Your task to perform on an android device: Open the stopwatch Image 0: 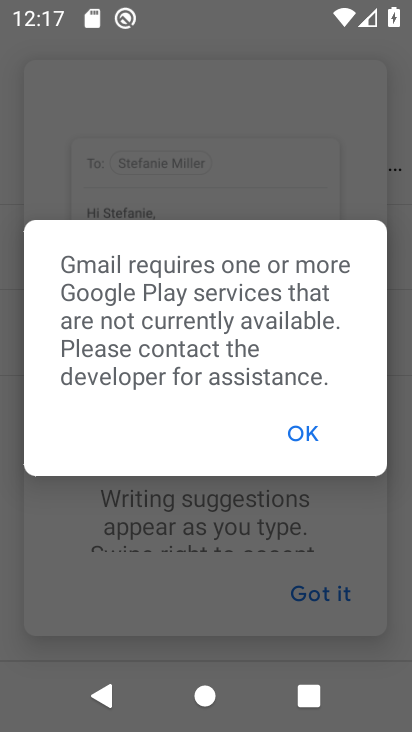
Step 0: press home button
Your task to perform on an android device: Open the stopwatch Image 1: 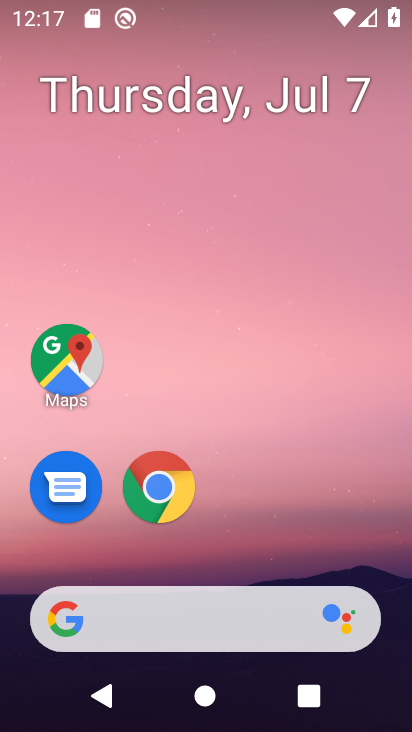
Step 1: drag from (344, 531) to (343, 123)
Your task to perform on an android device: Open the stopwatch Image 2: 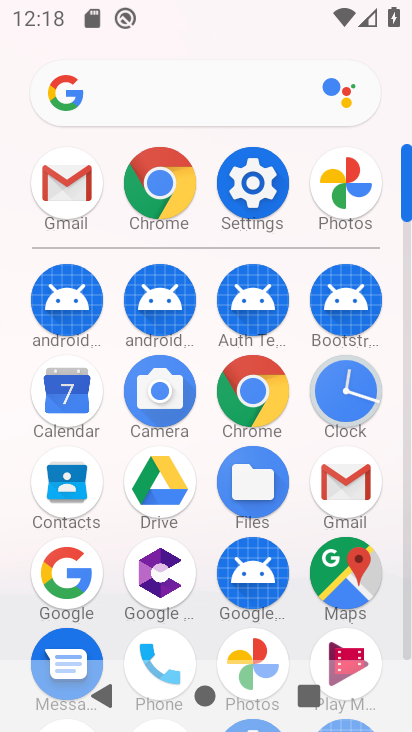
Step 2: click (364, 394)
Your task to perform on an android device: Open the stopwatch Image 3: 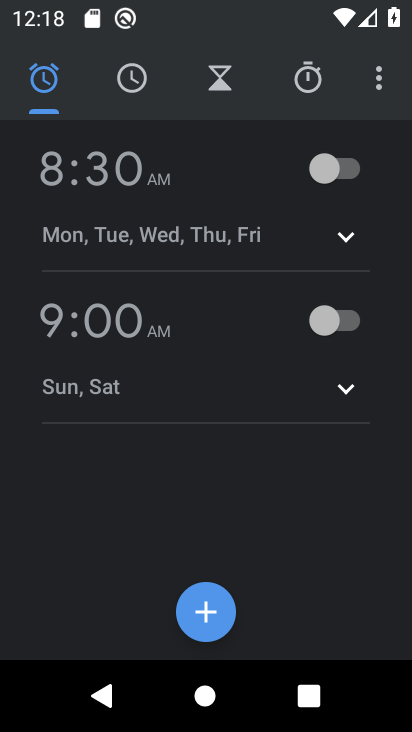
Step 3: click (311, 81)
Your task to perform on an android device: Open the stopwatch Image 4: 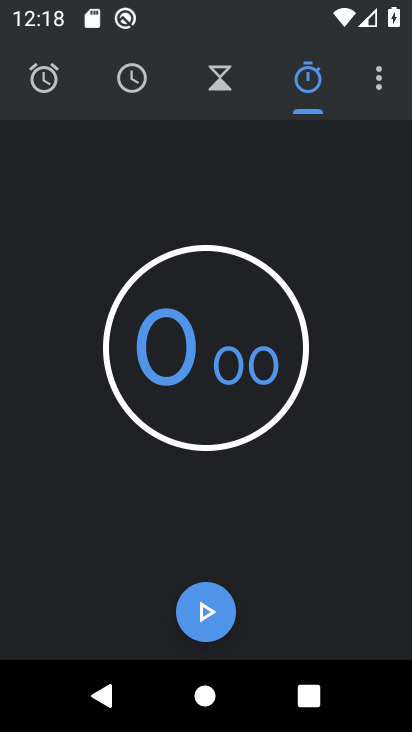
Step 4: task complete